Your task to perform on an android device: change timer sound Image 0: 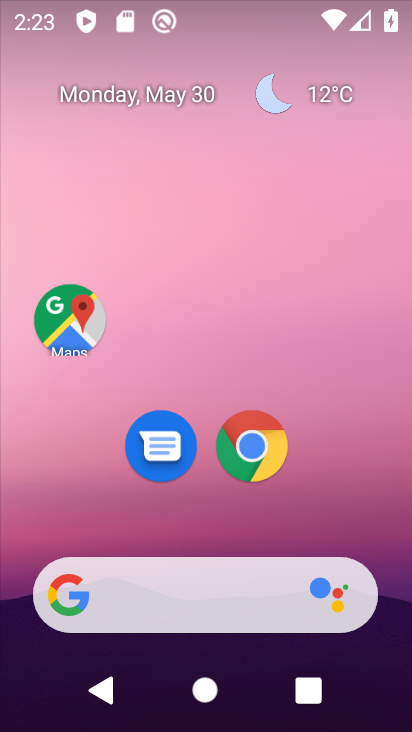
Step 0: drag from (307, 523) to (259, 184)
Your task to perform on an android device: change timer sound Image 1: 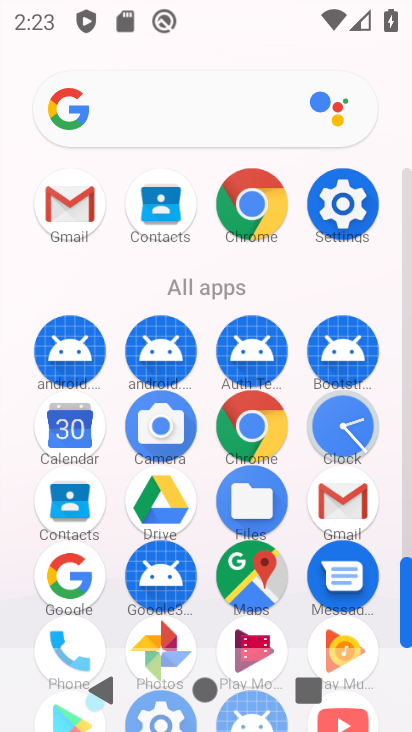
Step 1: click (343, 425)
Your task to perform on an android device: change timer sound Image 2: 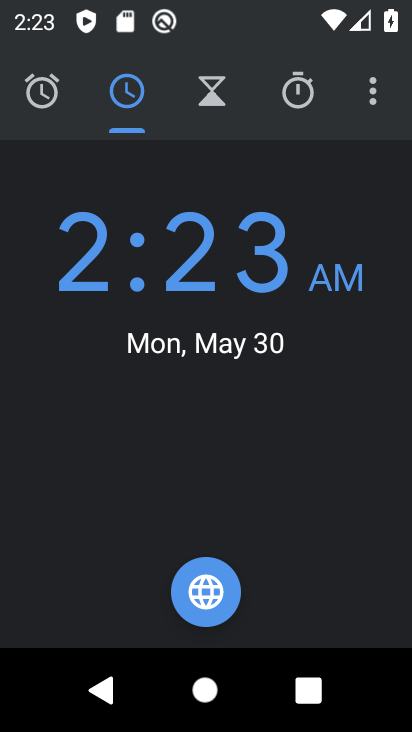
Step 2: click (377, 91)
Your task to perform on an android device: change timer sound Image 3: 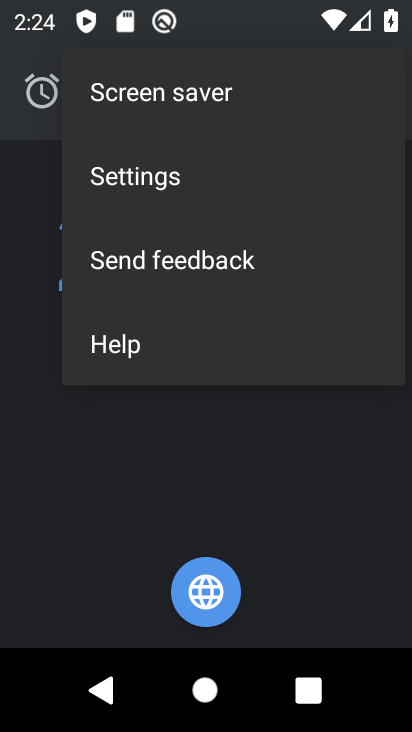
Step 3: click (164, 184)
Your task to perform on an android device: change timer sound Image 4: 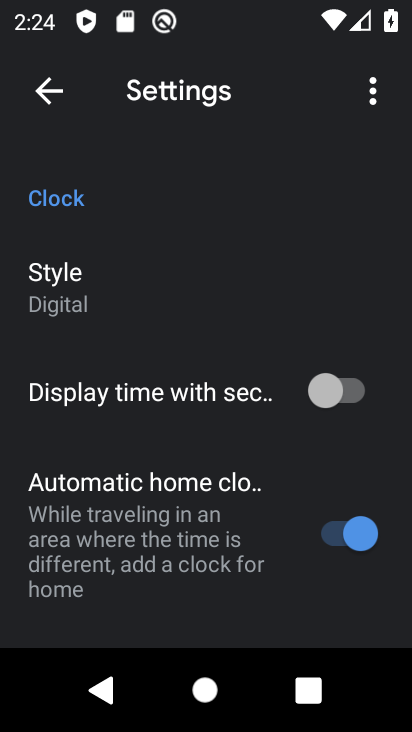
Step 4: drag from (146, 430) to (227, 315)
Your task to perform on an android device: change timer sound Image 5: 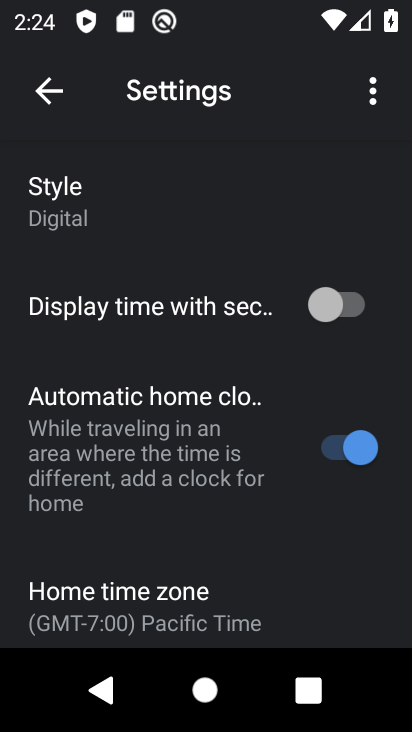
Step 5: drag from (158, 515) to (249, 401)
Your task to perform on an android device: change timer sound Image 6: 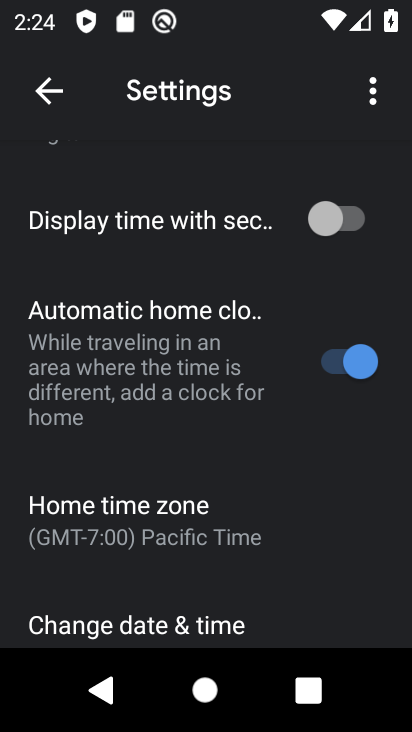
Step 6: drag from (157, 452) to (200, 324)
Your task to perform on an android device: change timer sound Image 7: 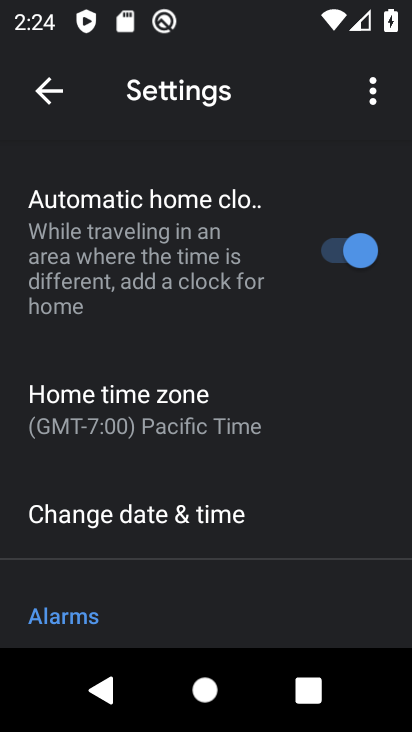
Step 7: drag from (147, 458) to (255, 340)
Your task to perform on an android device: change timer sound Image 8: 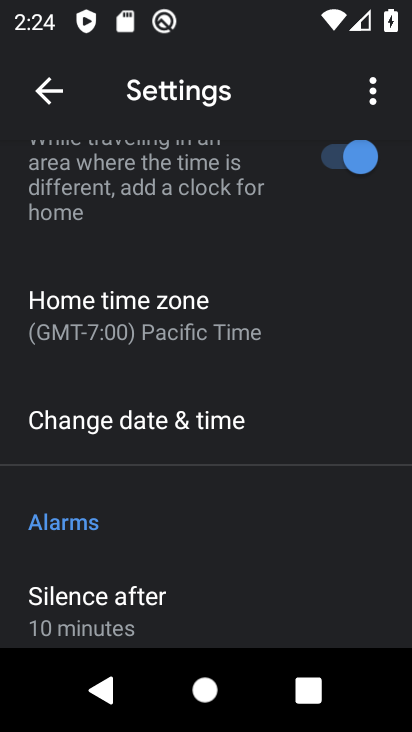
Step 8: drag from (162, 512) to (258, 389)
Your task to perform on an android device: change timer sound Image 9: 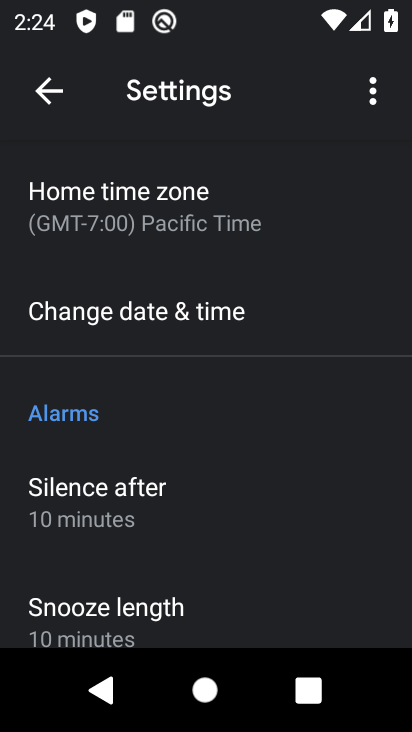
Step 9: drag from (104, 555) to (176, 435)
Your task to perform on an android device: change timer sound Image 10: 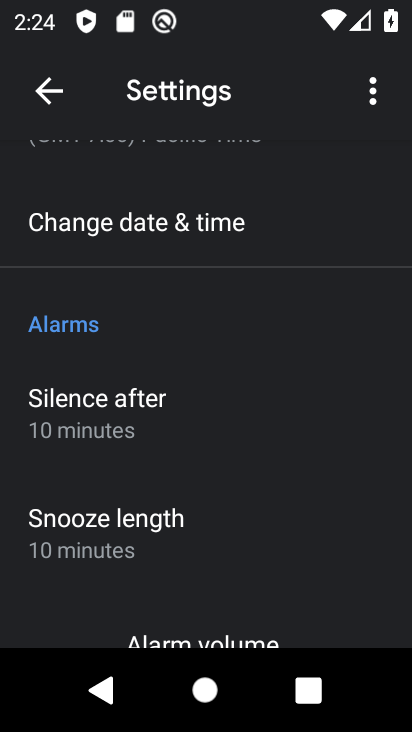
Step 10: drag from (120, 477) to (220, 359)
Your task to perform on an android device: change timer sound Image 11: 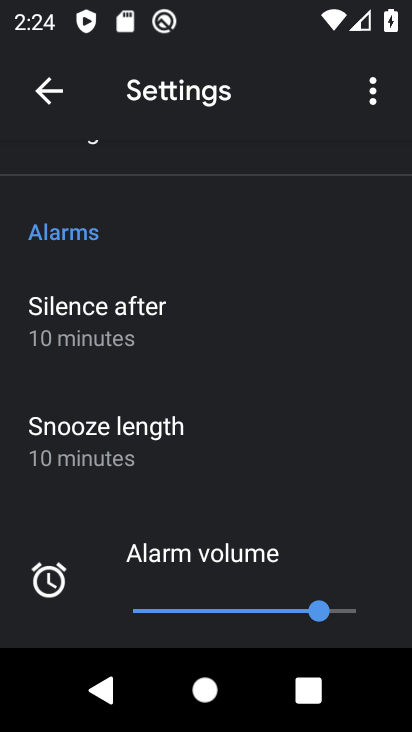
Step 11: drag from (145, 490) to (226, 355)
Your task to perform on an android device: change timer sound Image 12: 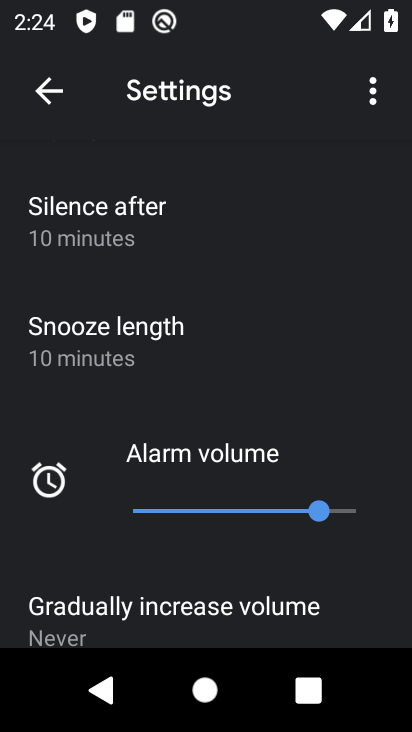
Step 12: drag from (113, 415) to (219, 304)
Your task to perform on an android device: change timer sound Image 13: 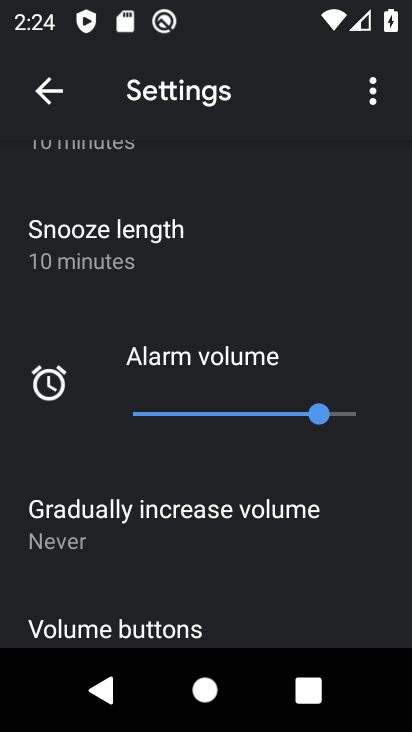
Step 13: drag from (124, 451) to (241, 319)
Your task to perform on an android device: change timer sound Image 14: 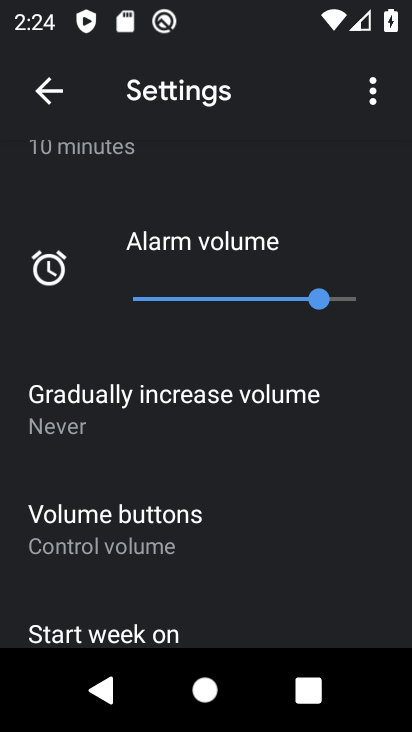
Step 14: drag from (180, 468) to (244, 378)
Your task to perform on an android device: change timer sound Image 15: 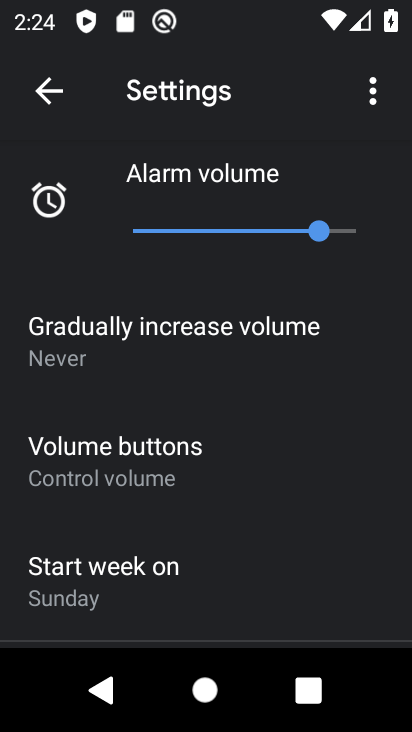
Step 15: drag from (218, 502) to (273, 408)
Your task to perform on an android device: change timer sound Image 16: 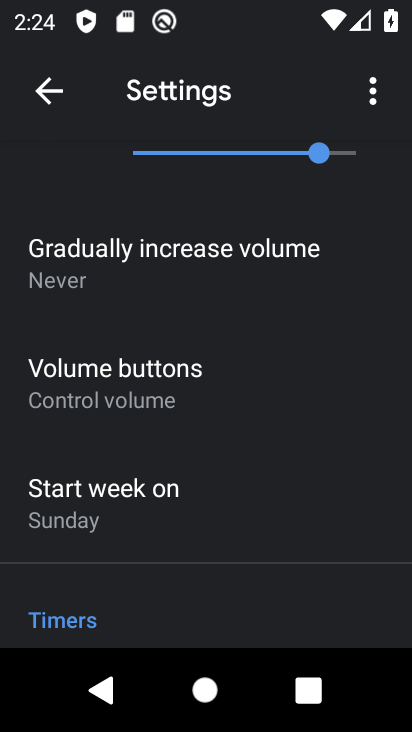
Step 16: drag from (187, 538) to (244, 468)
Your task to perform on an android device: change timer sound Image 17: 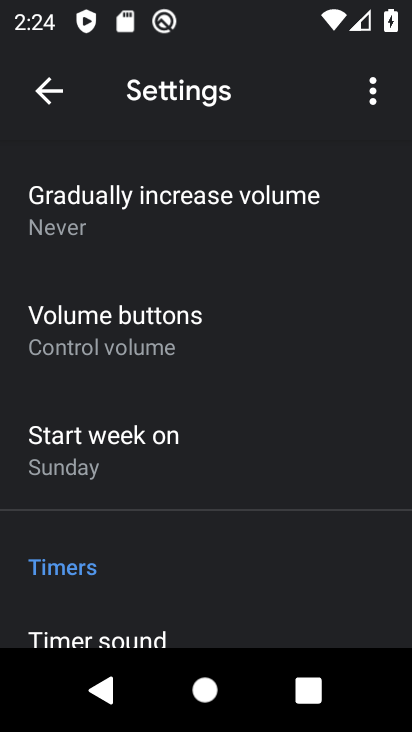
Step 17: drag from (159, 574) to (265, 450)
Your task to perform on an android device: change timer sound Image 18: 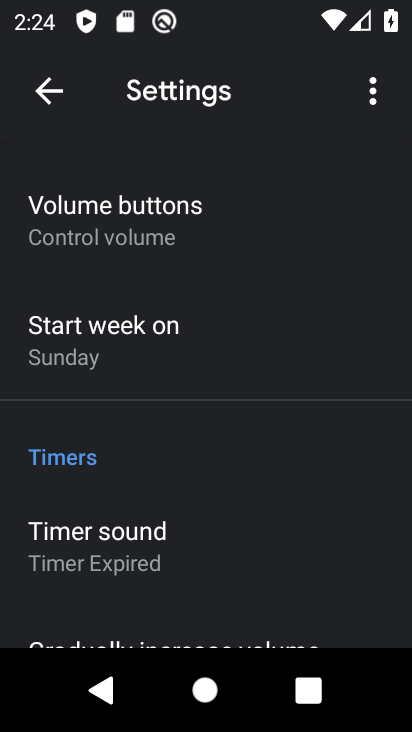
Step 18: click (143, 549)
Your task to perform on an android device: change timer sound Image 19: 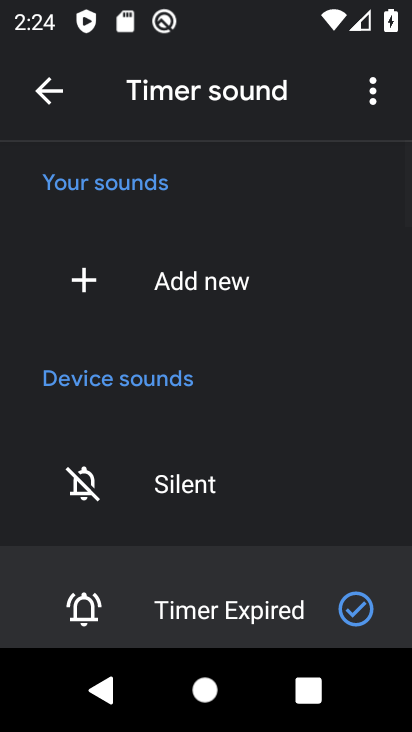
Step 19: drag from (169, 528) to (271, 279)
Your task to perform on an android device: change timer sound Image 20: 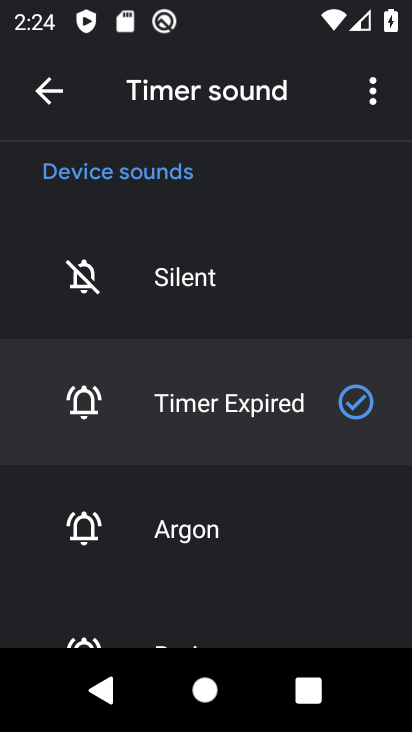
Step 20: drag from (184, 572) to (303, 297)
Your task to perform on an android device: change timer sound Image 21: 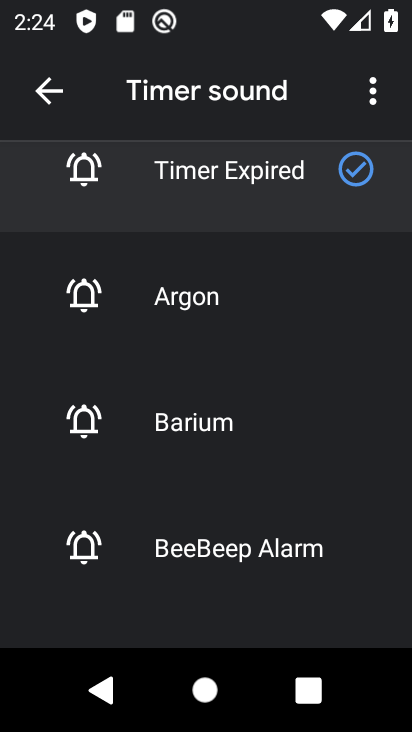
Step 21: drag from (208, 589) to (341, 347)
Your task to perform on an android device: change timer sound Image 22: 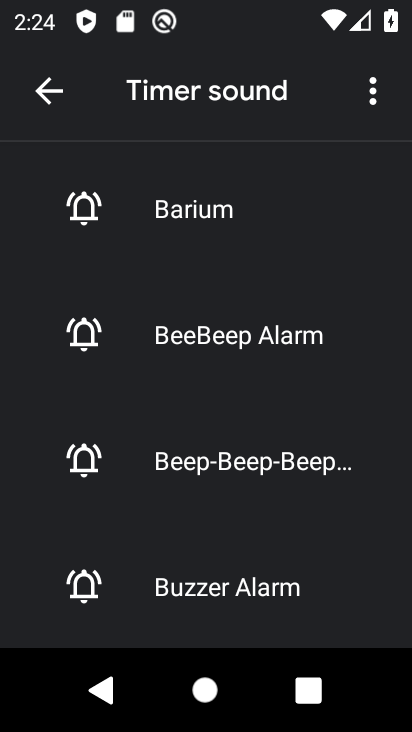
Step 22: click (267, 470)
Your task to perform on an android device: change timer sound Image 23: 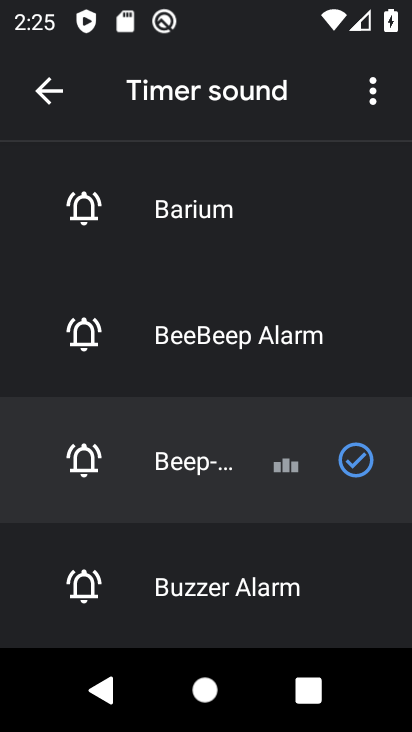
Step 23: task complete